Your task to perform on an android device: allow notifications from all sites in the chrome app Image 0: 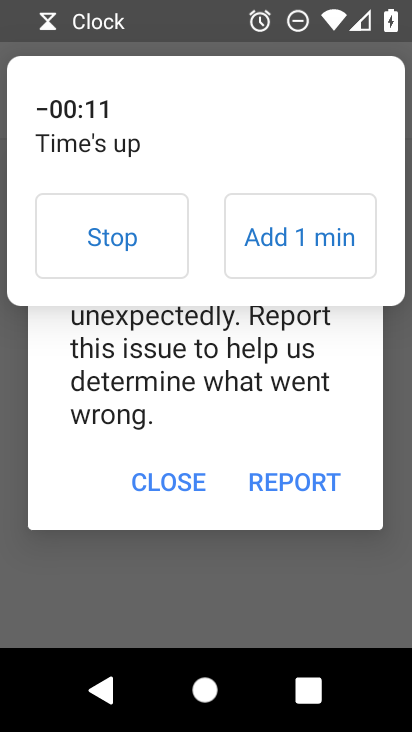
Step 0: click (121, 234)
Your task to perform on an android device: allow notifications from all sites in the chrome app Image 1: 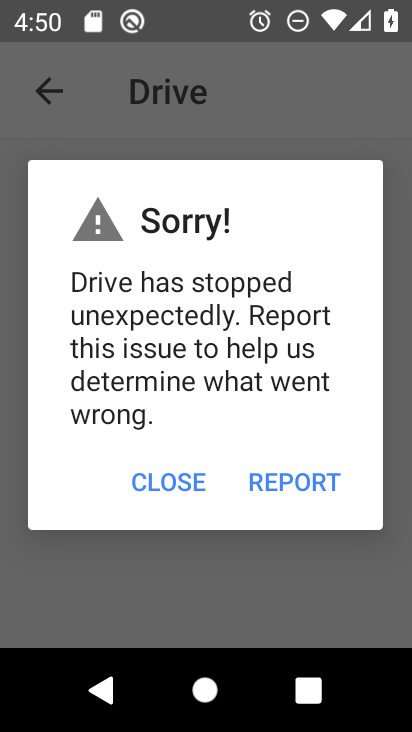
Step 1: press home button
Your task to perform on an android device: allow notifications from all sites in the chrome app Image 2: 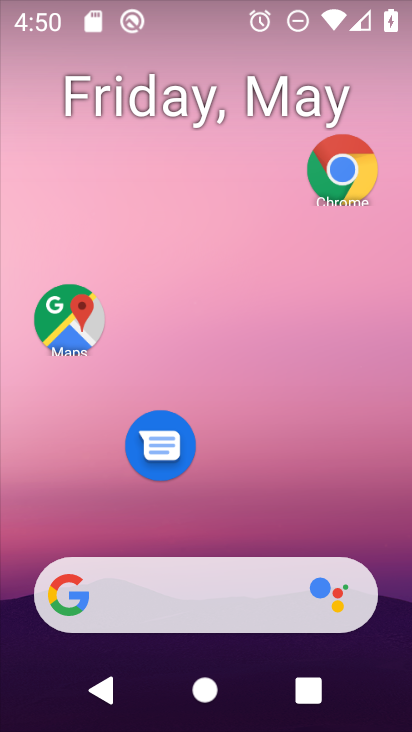
Step 2: drag from (216, 544) to (186, 168)
Your task to perform on an android device: allow notifications from all sites in the chrome app Image 3: 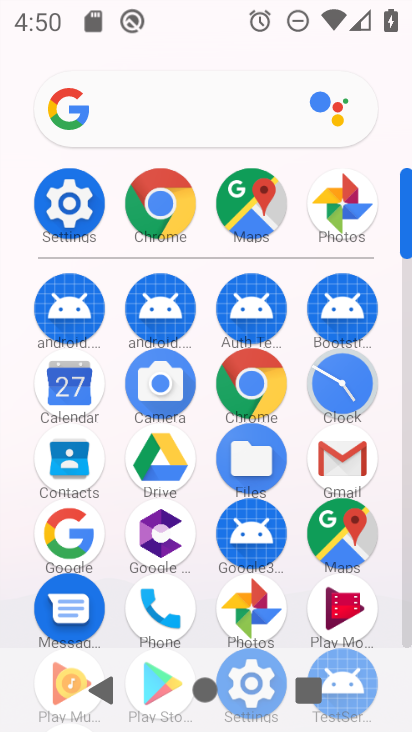
Step 3: click (162, 199)
Your task to perform on an android device: allow notifications from all sites in the chrome app Image 4: 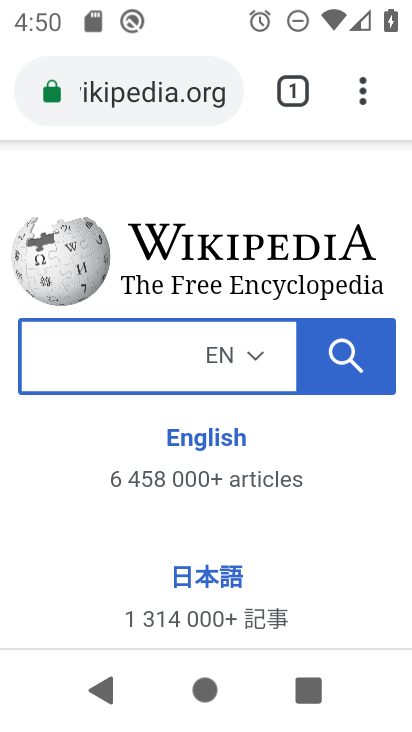
Step 4: click (376, 96)
Your task to perform on an android device: allow notifications from all sites in the chrome app Image 5: 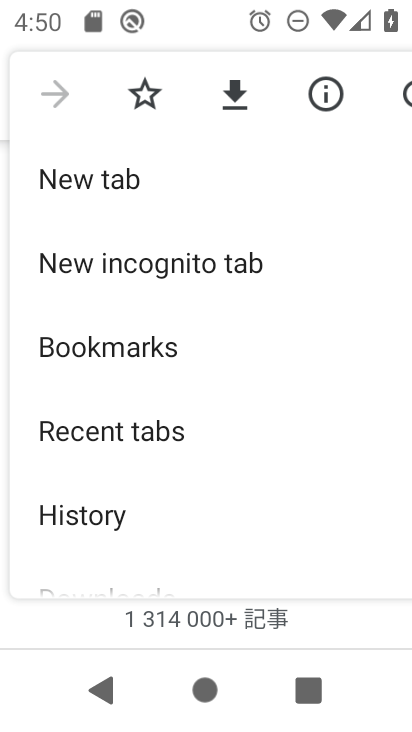
Step 5: drag from (102, 473) to (104, 2)
Your task to perform on an android device: allow notifications from all sites in the chrome app Image 6: 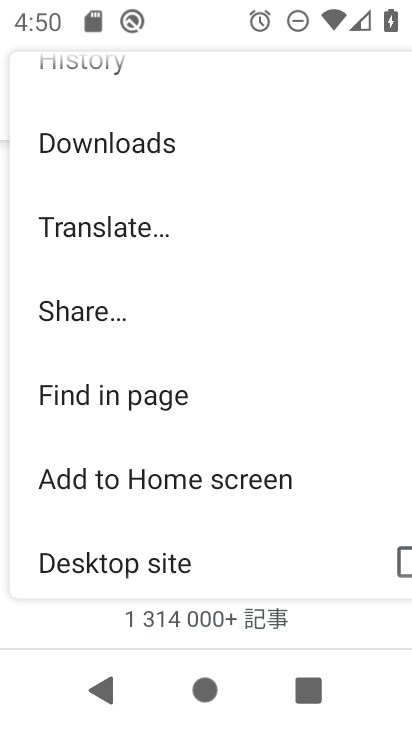
Step 6: drag from (153, 497) to (177, 84)
Your task to perform on an android device: allow notifications from all sites in the chrome app Image 7: 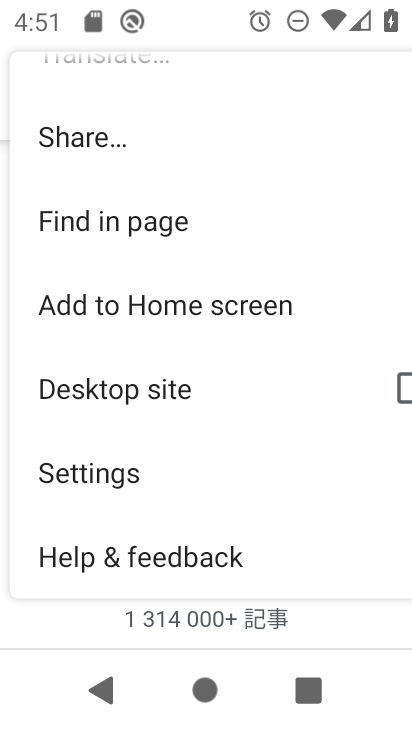
Step 7: click (125, 463)
Your task to perform on an android device: allow notifications from all sites in the chrome app Image 8: 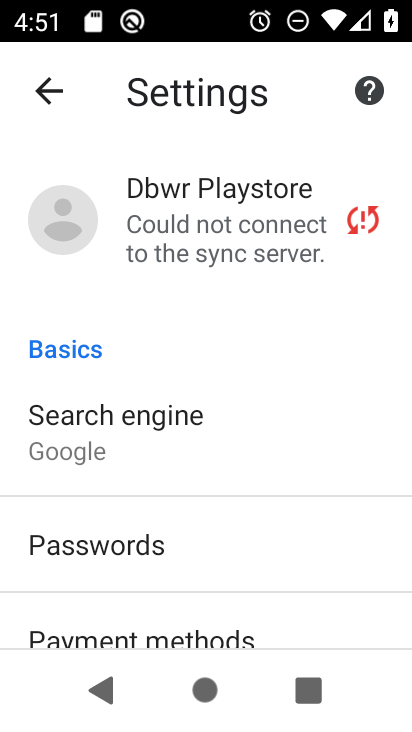
Step 8: drag from (90, 589) to (89, 270)
Your task to perform on an android device: allow notifications from all sites in the chrome app Image 9: 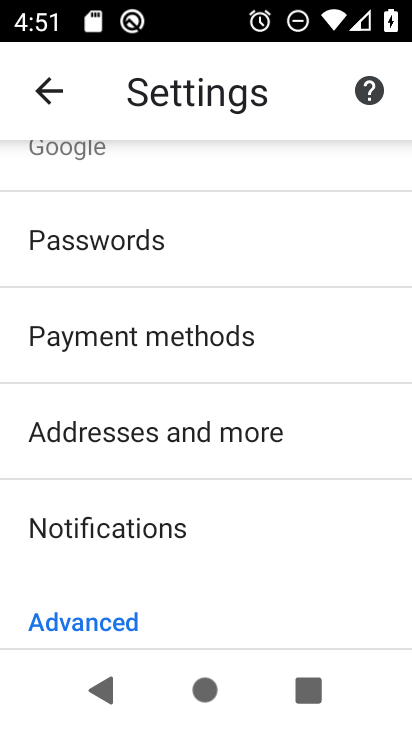
Step 9: drag from (120, 570) to (119, 265)
Your task to perform on an android device: allow notifications from all sites in the chrome app Image 10: 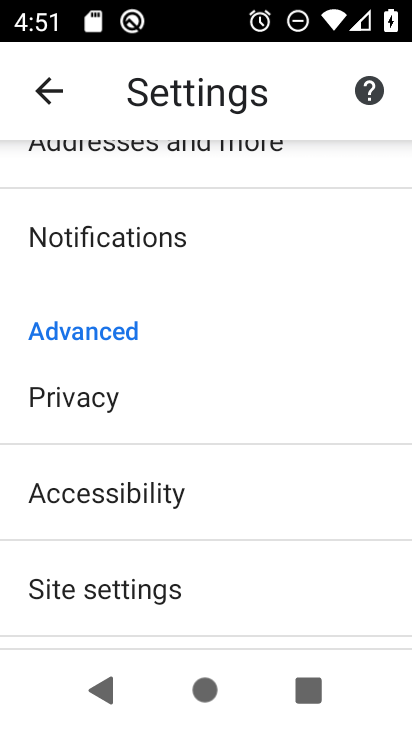
Step 10: click (105, 590)
Your task to perform on an android device: allow notifications from all sites in the chrome app Image 11: 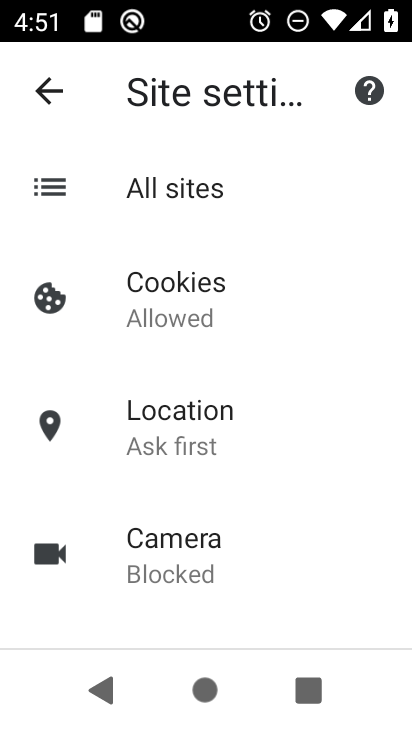
Step 11: click (166, 168)
Your task to perform on an android device: allow notifications from all sites in the chrome app Image 12: 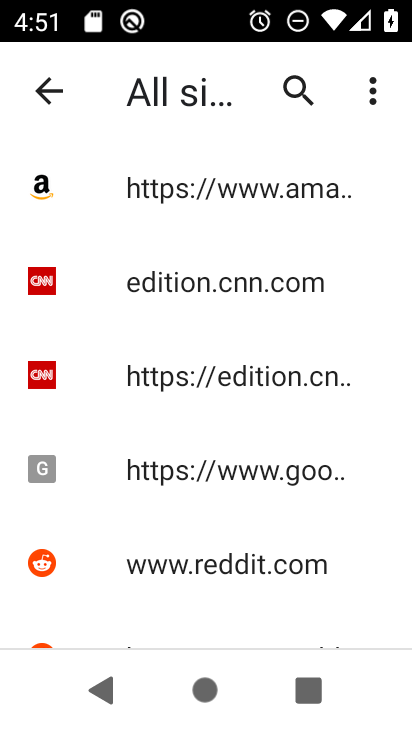
Step 12: click (210, 471)
Your task to perform on an android device: allow notifications from all sites in the chrome app Image 13: 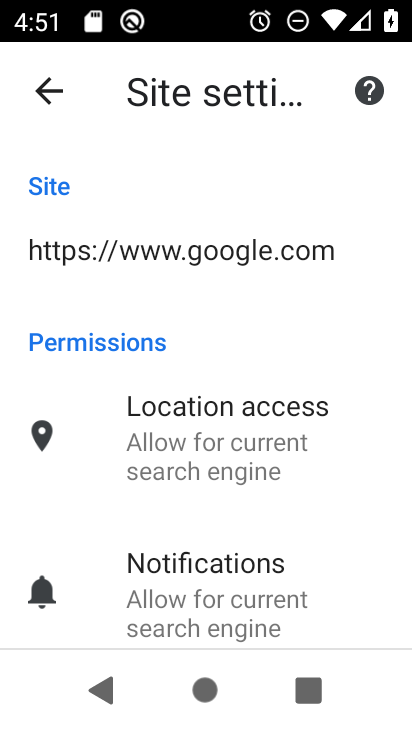
Step 13: click (175, 609)
Your task to perform on an android device: allow notifications from all sites in the chrome app Image 14: 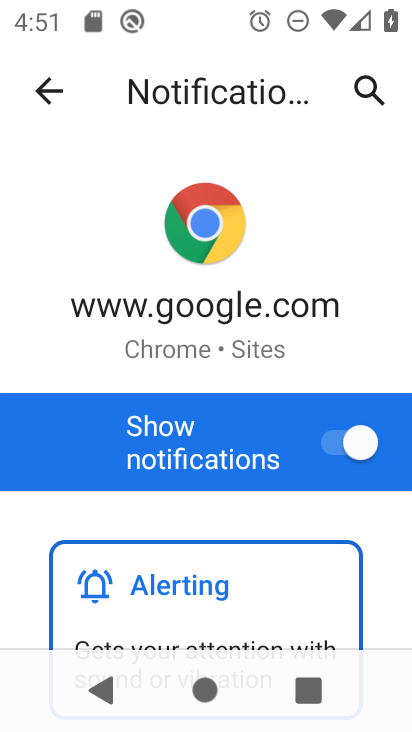
Step 14: task complete